Your task to perform on an android device: toggle priority inbox in the gmail app Image 0: 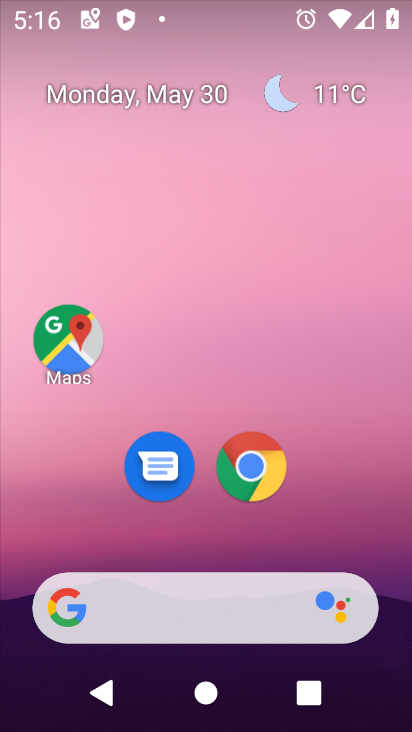
Step 0: drag from (228, 551) to (161, 15)
Your task to perform on an android device: toggle priority inbox in the gmail app Image 1: 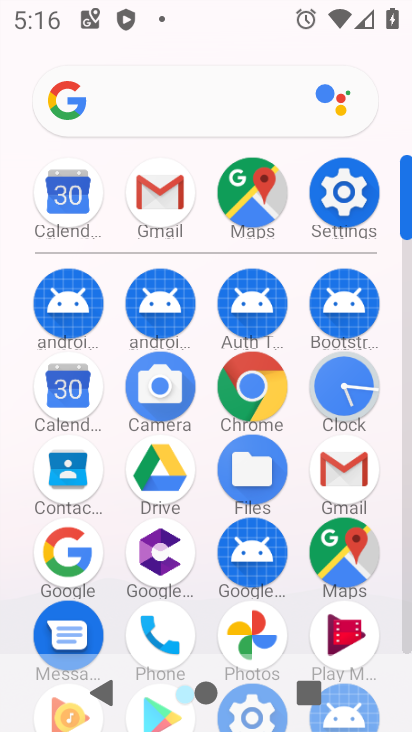
Step 1: click (168, 193)
Your task to perform on an android device: toggle priority inbox in the gmail app Image 2: 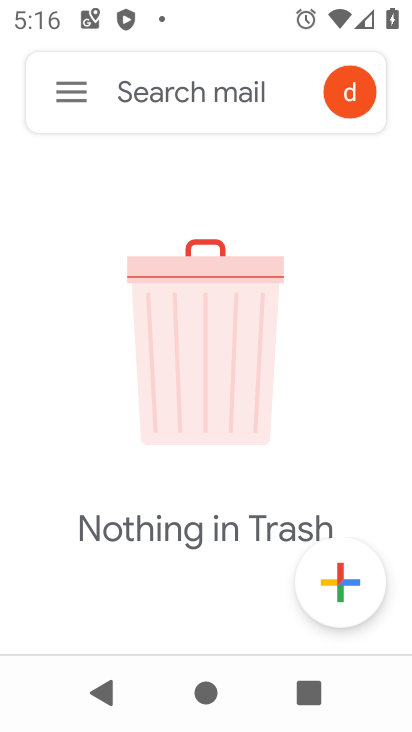
Step 2: click (78, 75)
Your task to perform on an android device: toggle priority inbox in the gmail app Image 3: 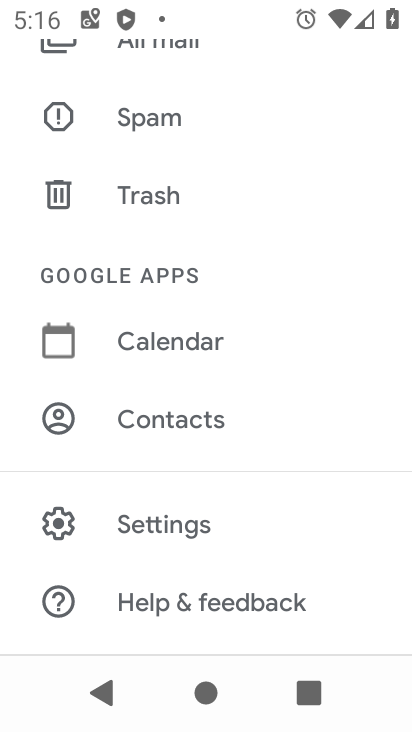
Step 3: click (156, 513)
Your task to perform on an android device: toggle priority inbox in the gmail app Image 4: 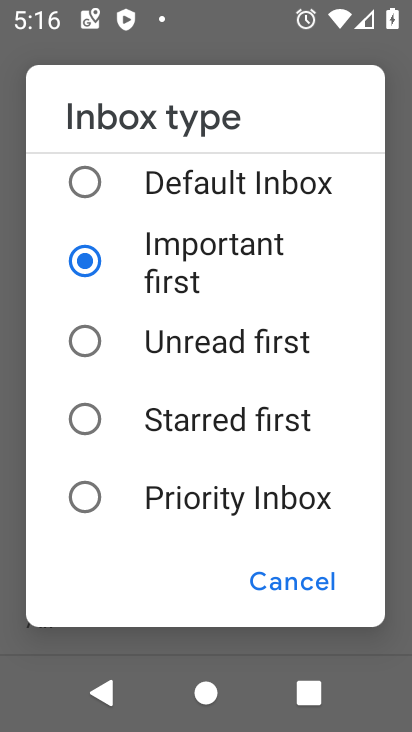
Step 4: click (103, 493)
Your task to perform on an android device: toggle priority inbox in the gmail app Image 5: 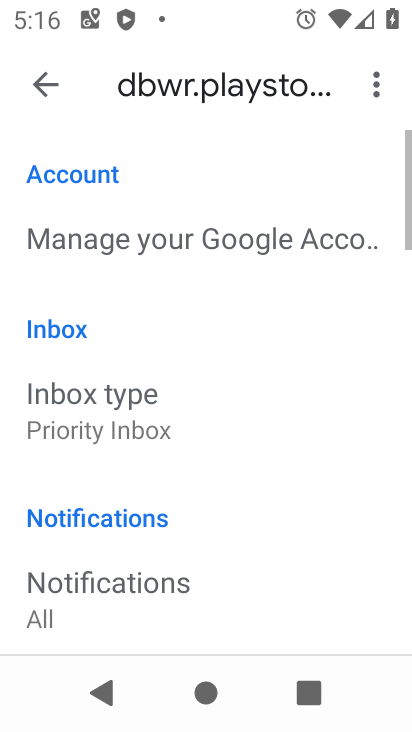
Step 5: task complete